Your task to perform on an android device: Go to eBay Image 0: 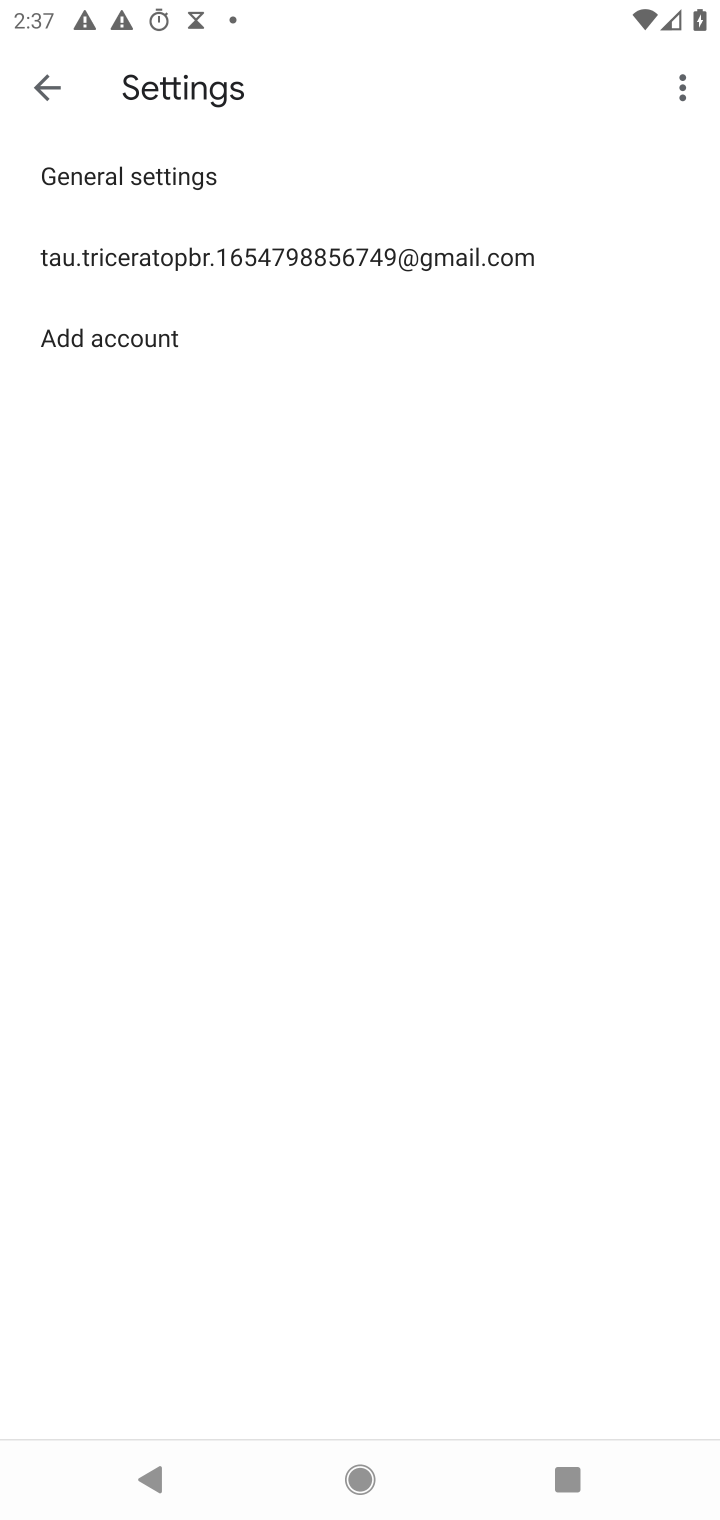
Step 0: press home button
Your task to perform on an android device: Go to eBay Image 1: 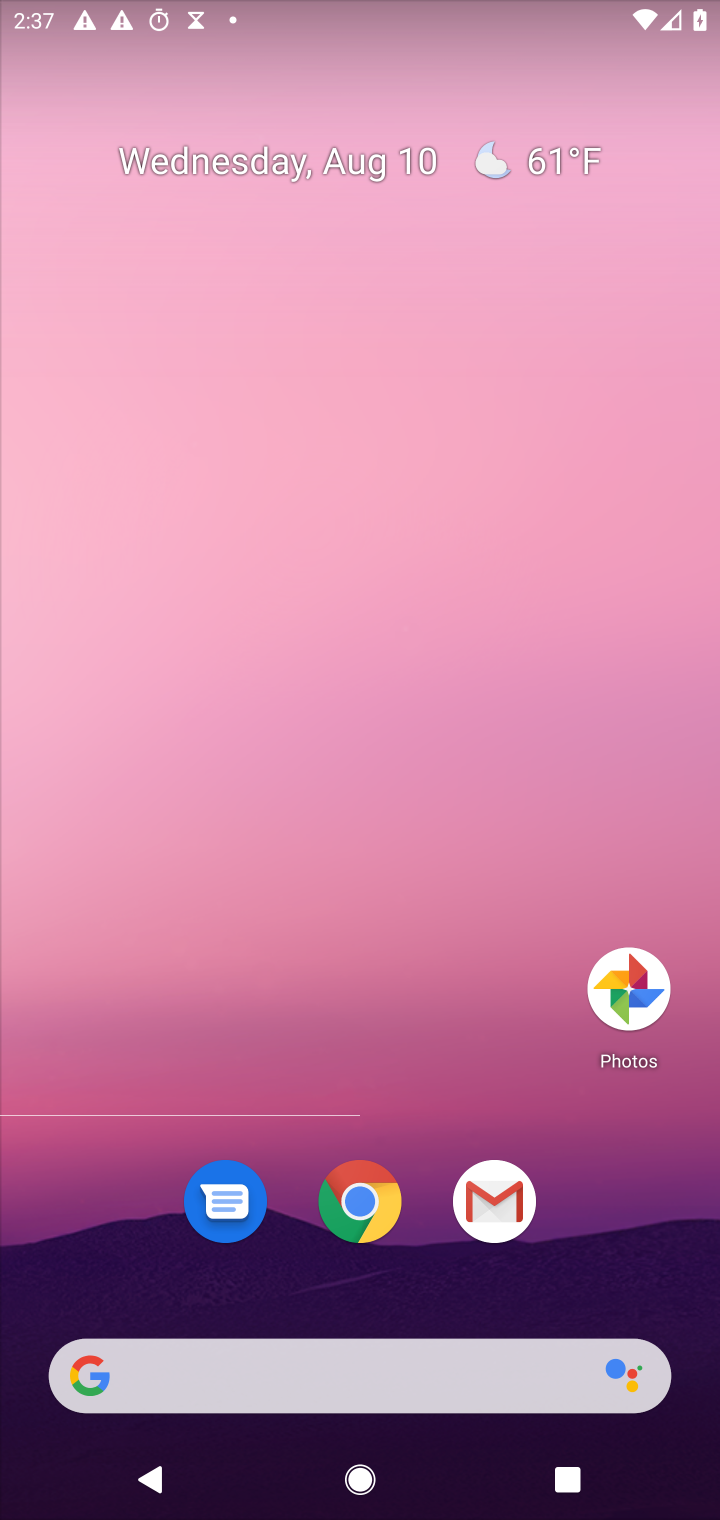
Step 1: click (81, 1373)
Your task to perform on an android device: Go to eBay Image 2: 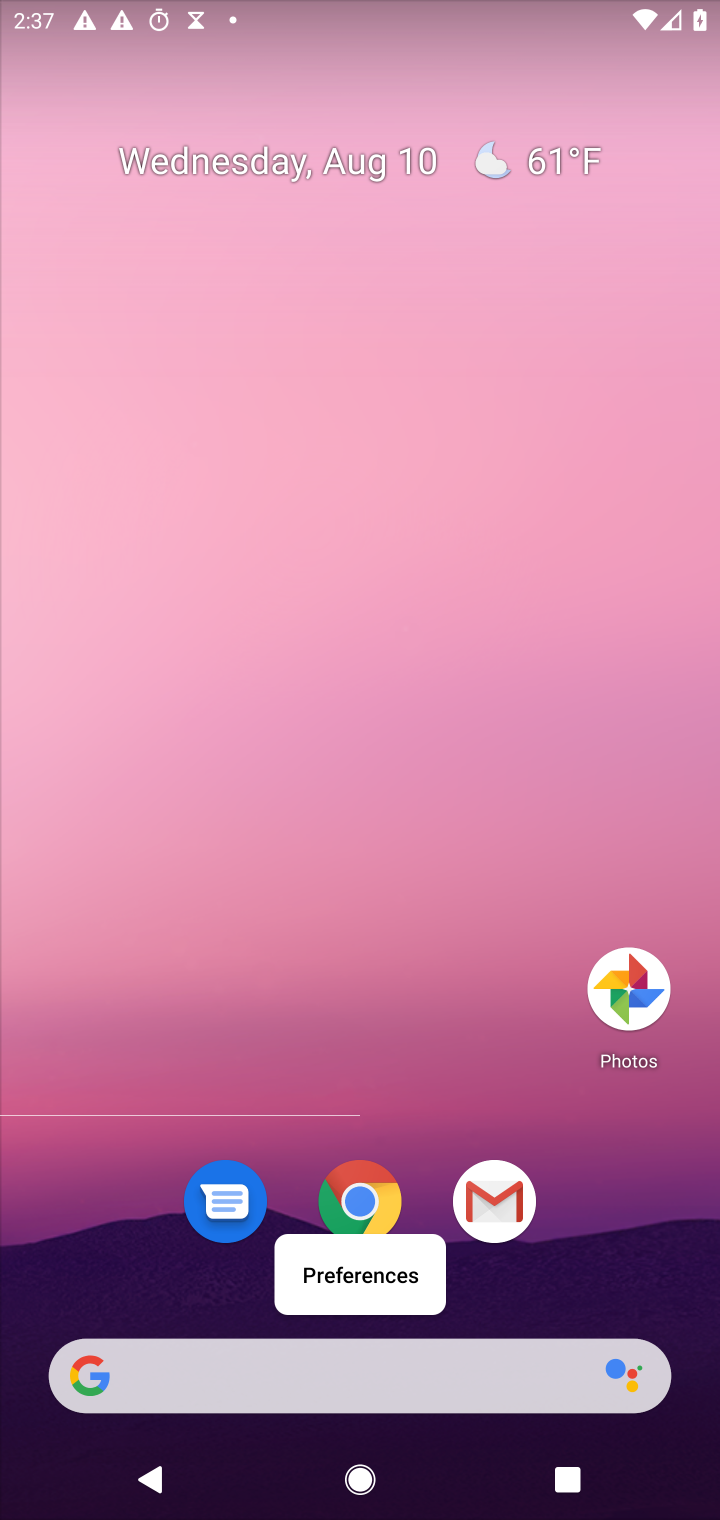
Step 2: click (81, 1373)
Your task to perform on an android device: Go to eBay Image 3: 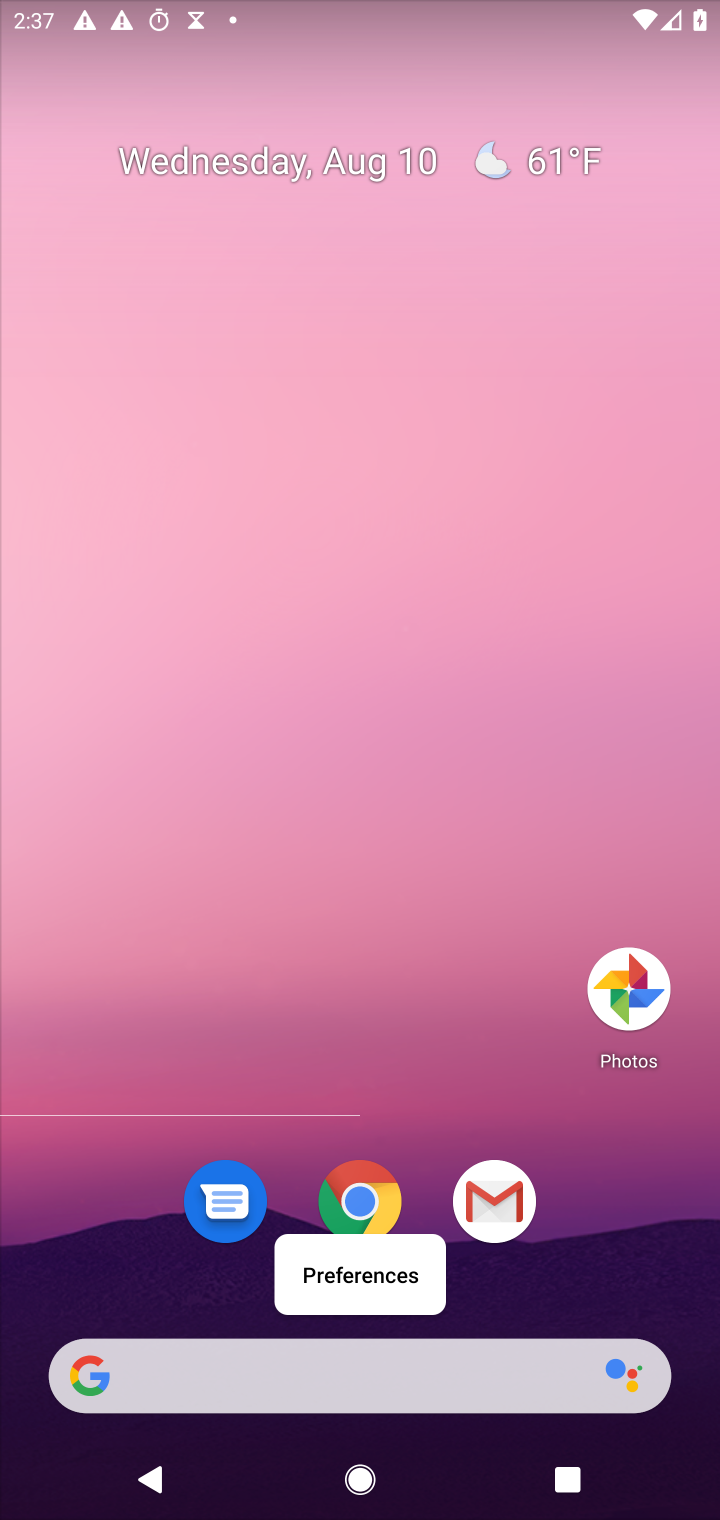
Step 3: click (60, 1347)
Your task to perform on an android device: Go to eBay Image 4: 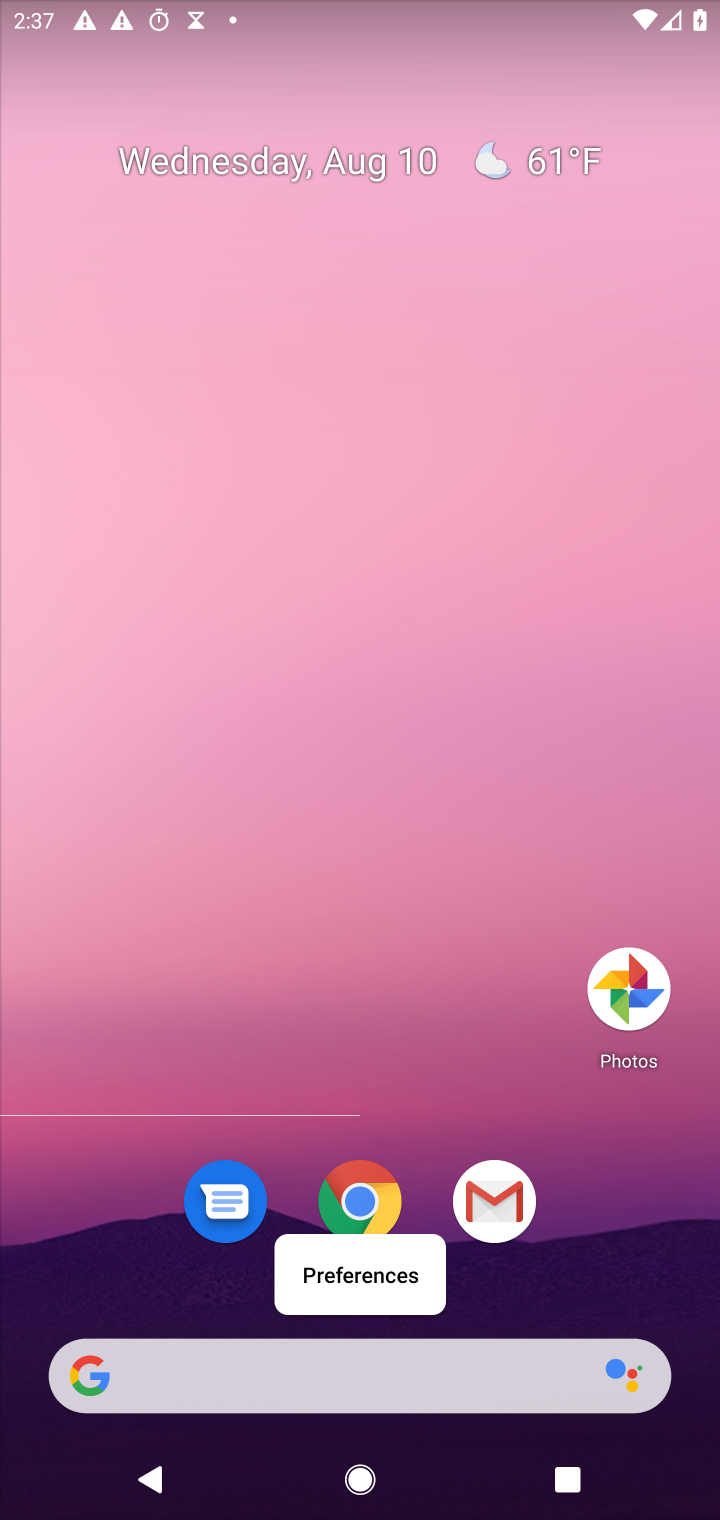
Step 4: click (71, 1378)
Your task to perform on an android device: Go to eBay Image 5: 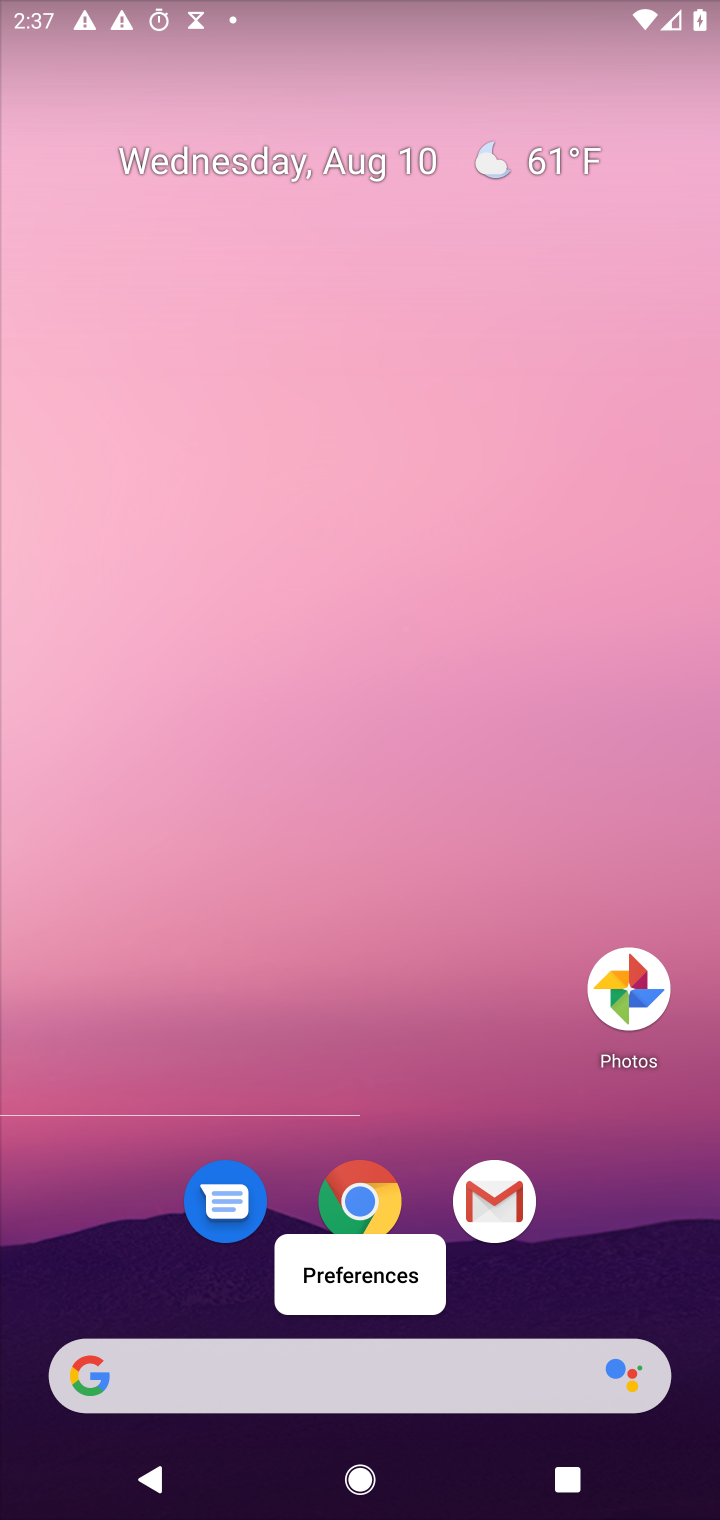
Step 5: click (79, 1384)
Your task to perform on an android device: Go to eBay Image 6: 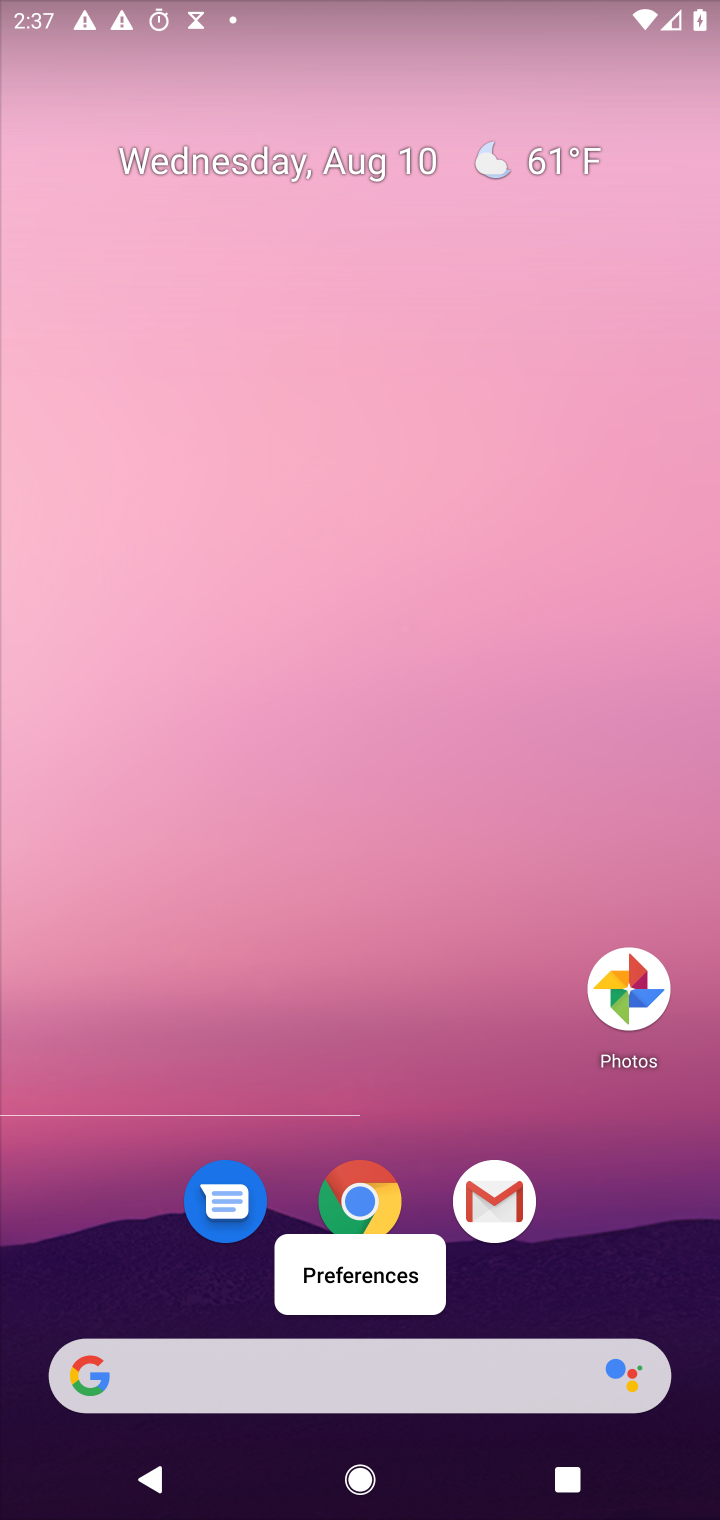
Step 6: click (71, 1371)
Your task to perform on an android device: Go to eBay Image 7: 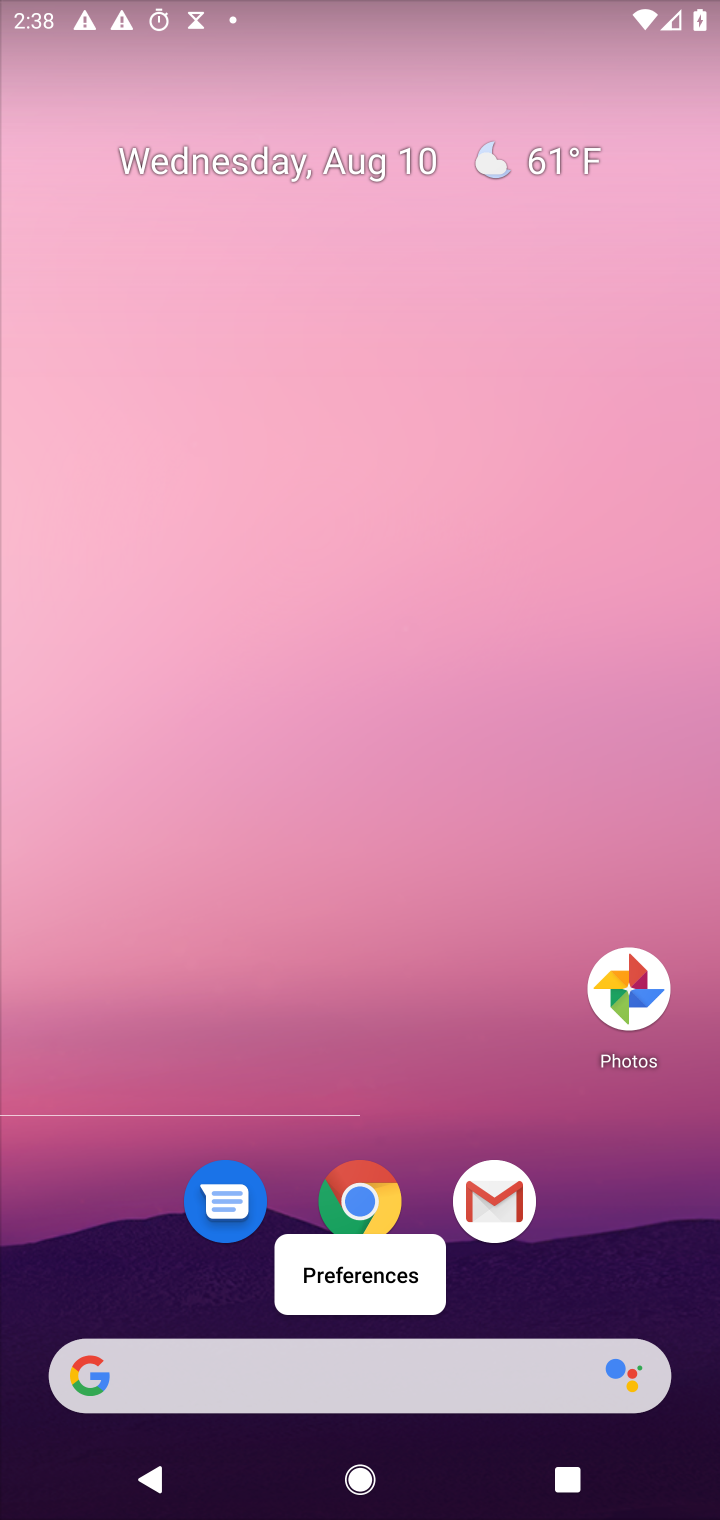
Step 7: click (105, 1380)
Your task to perform on an android device: Go to eBay Image 8: 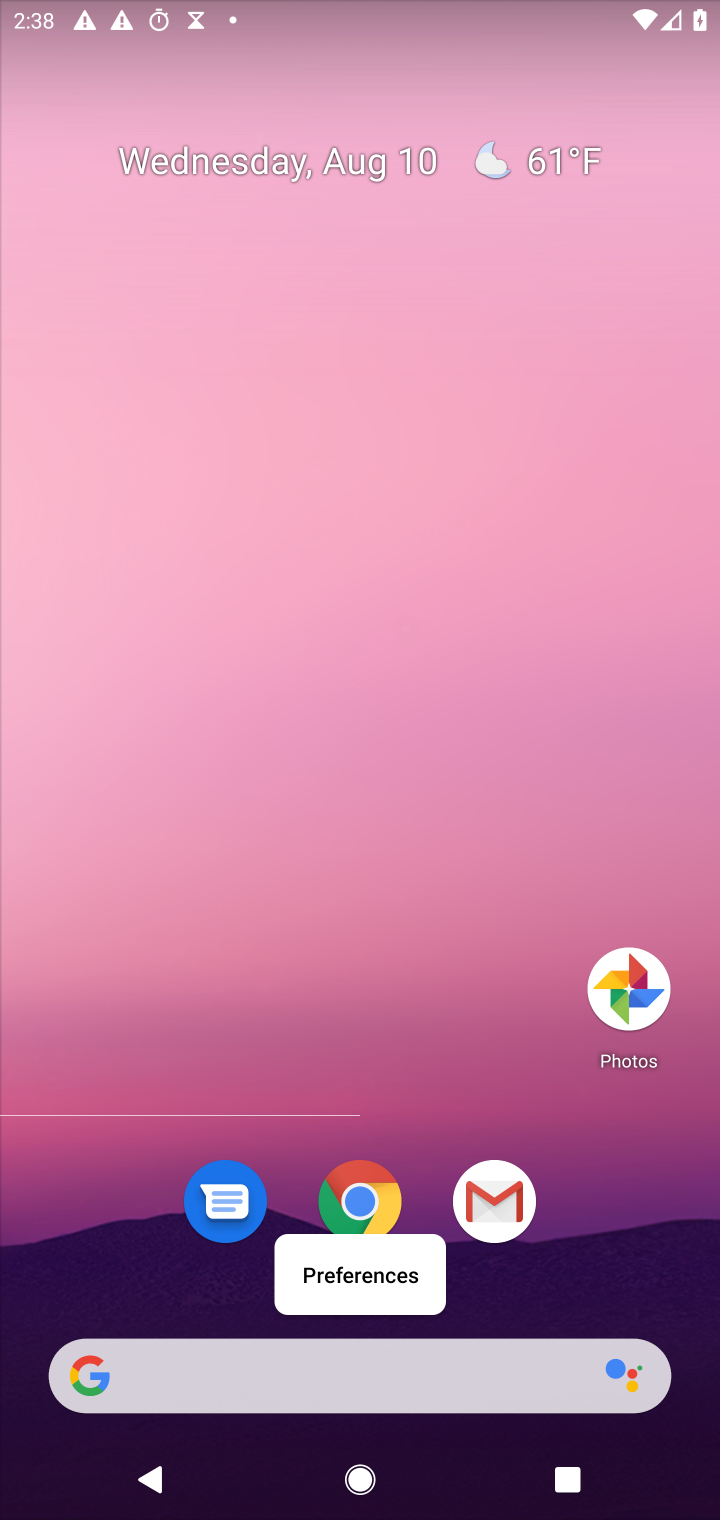
Step 8: click (105, 1380)
Your task to perform on an android device: Go to eBay Image 9: 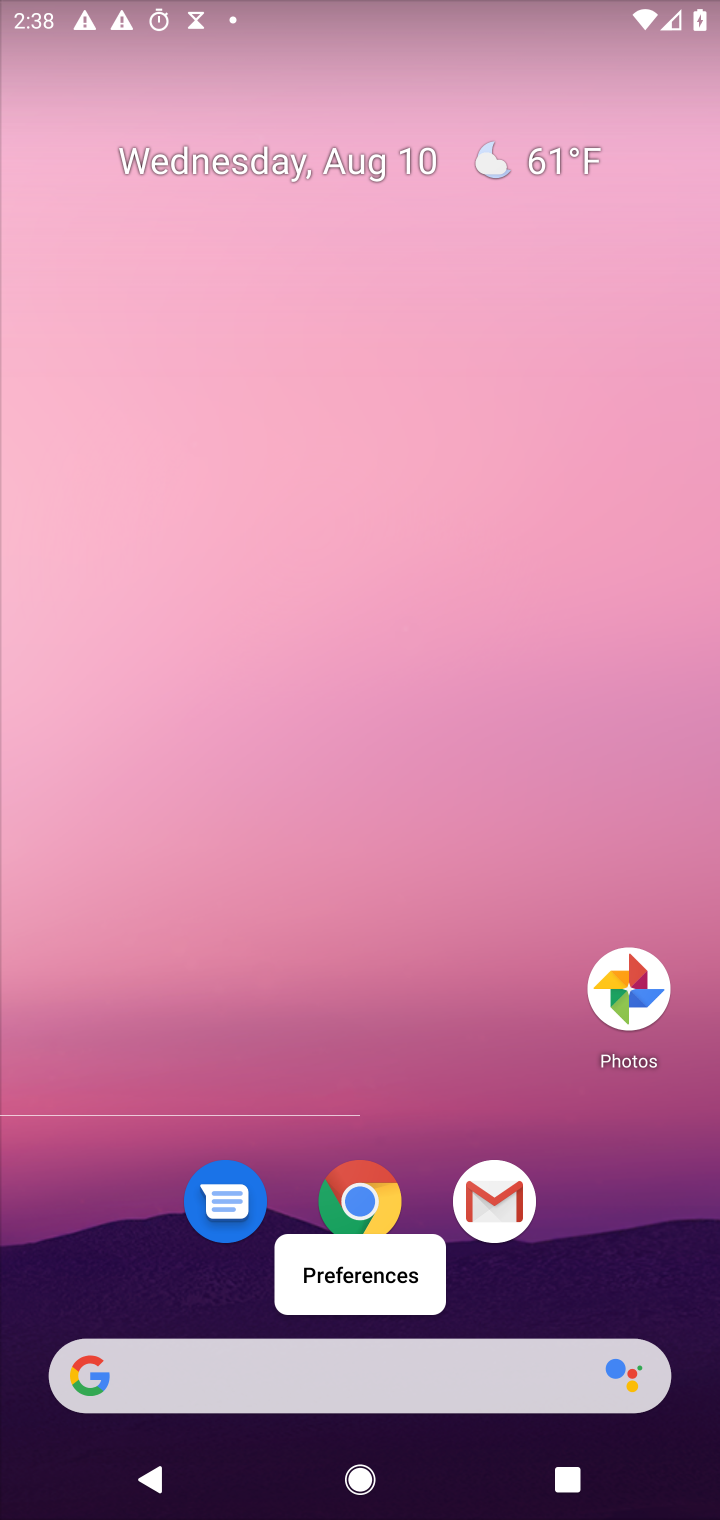
Step 9: click (89, 1370)
Your task to perform on an android device: Go to eBay Image 10: 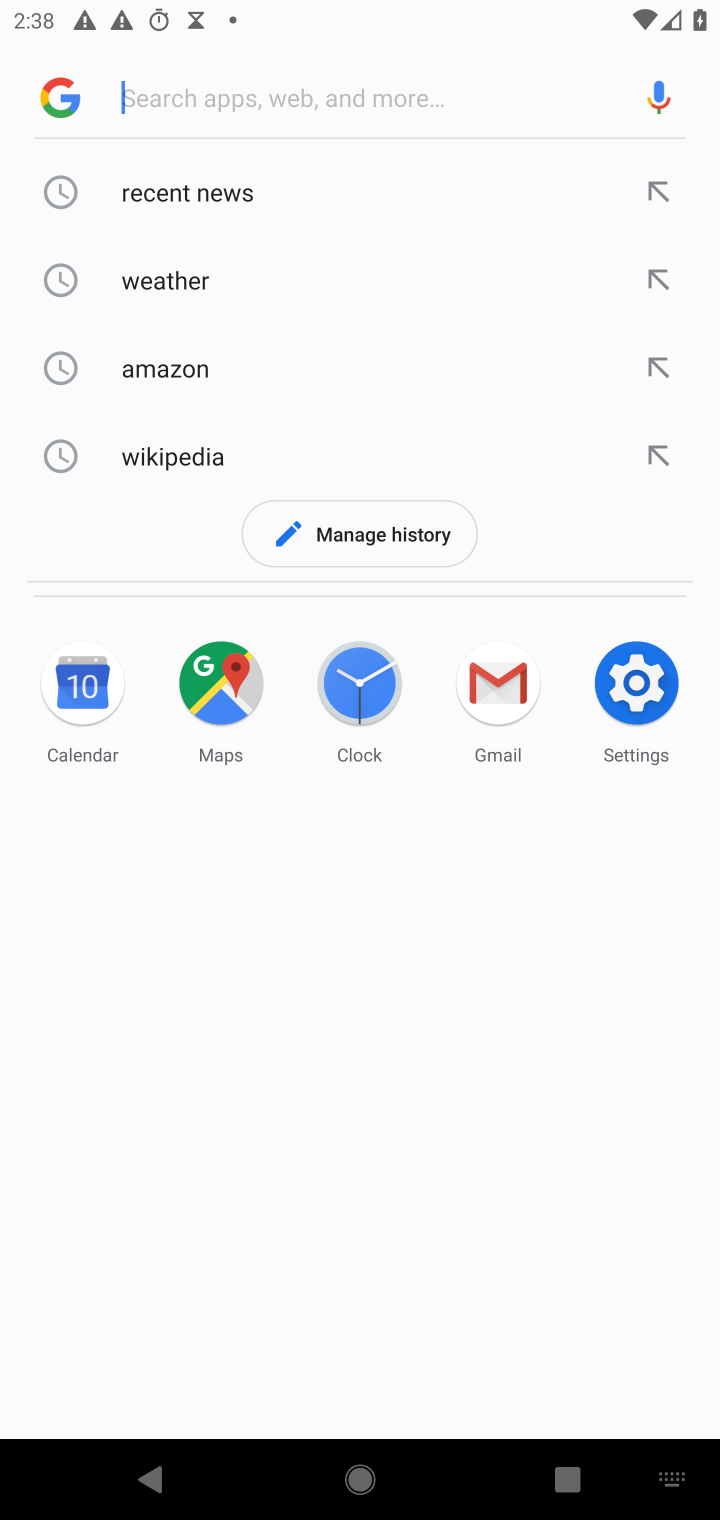
Step 10: type "eBay"
Your task to perform on an android device: Go to eBay Image 11: 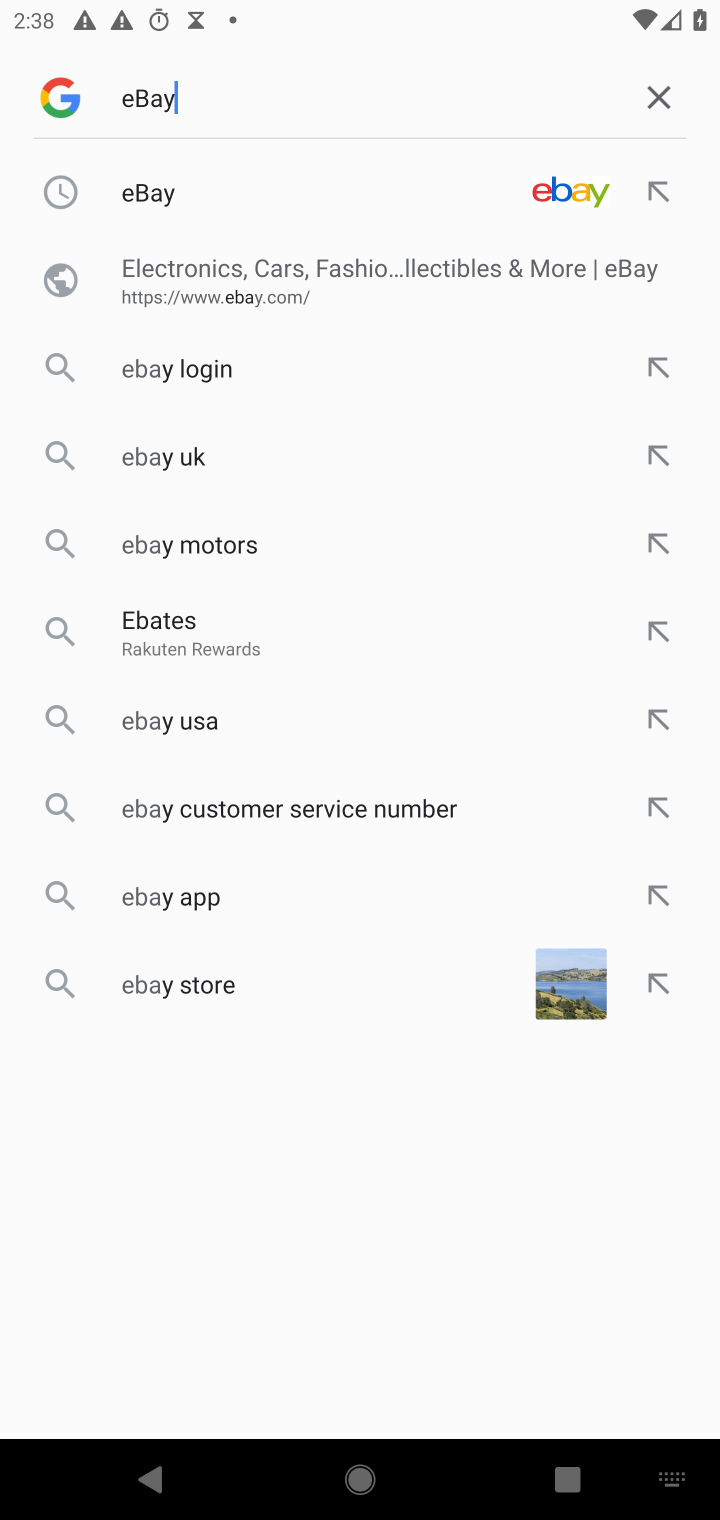
Step 11: press enter
Your task to perform on an android device: Go to eBay Image 12: 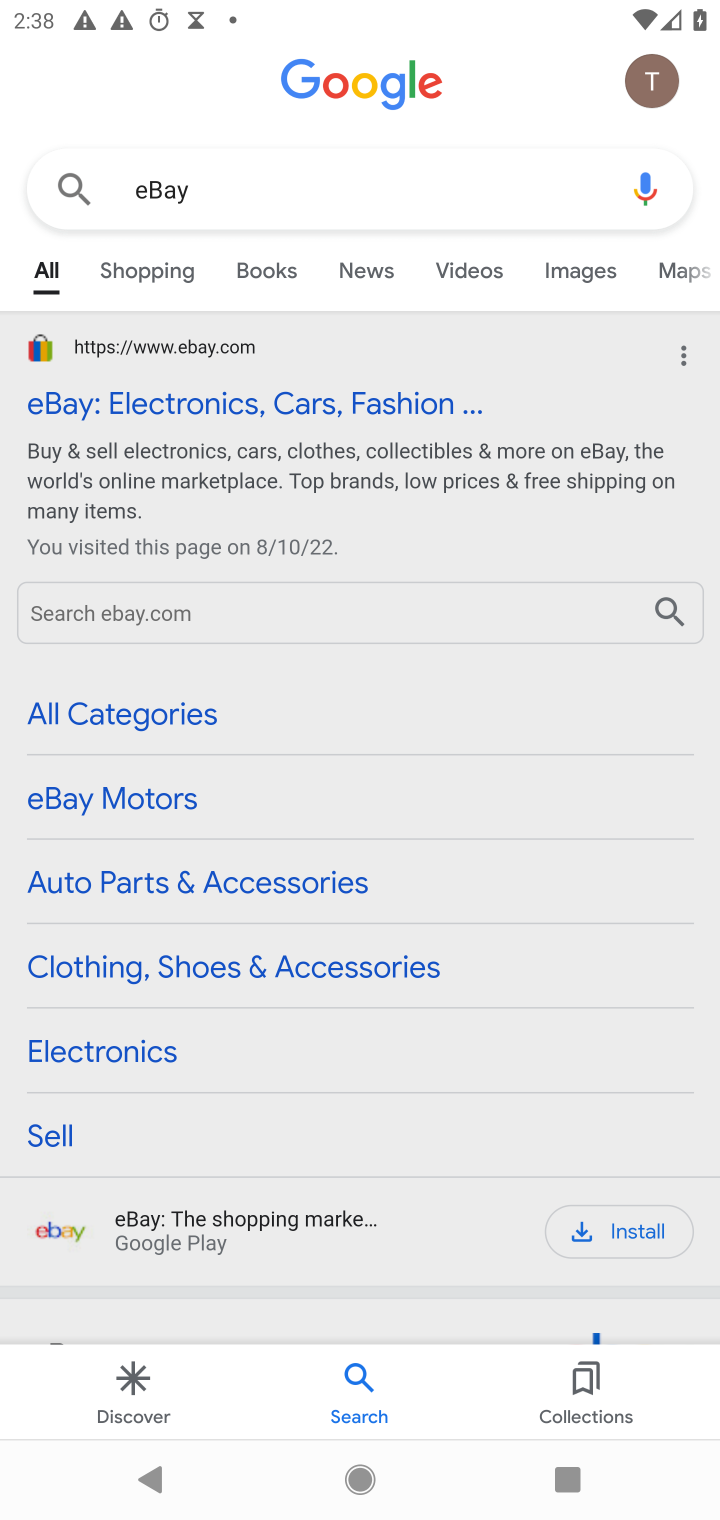
Step 12: click (340, 397)
Your task to perform on an android device: Go to eBay Image 13: 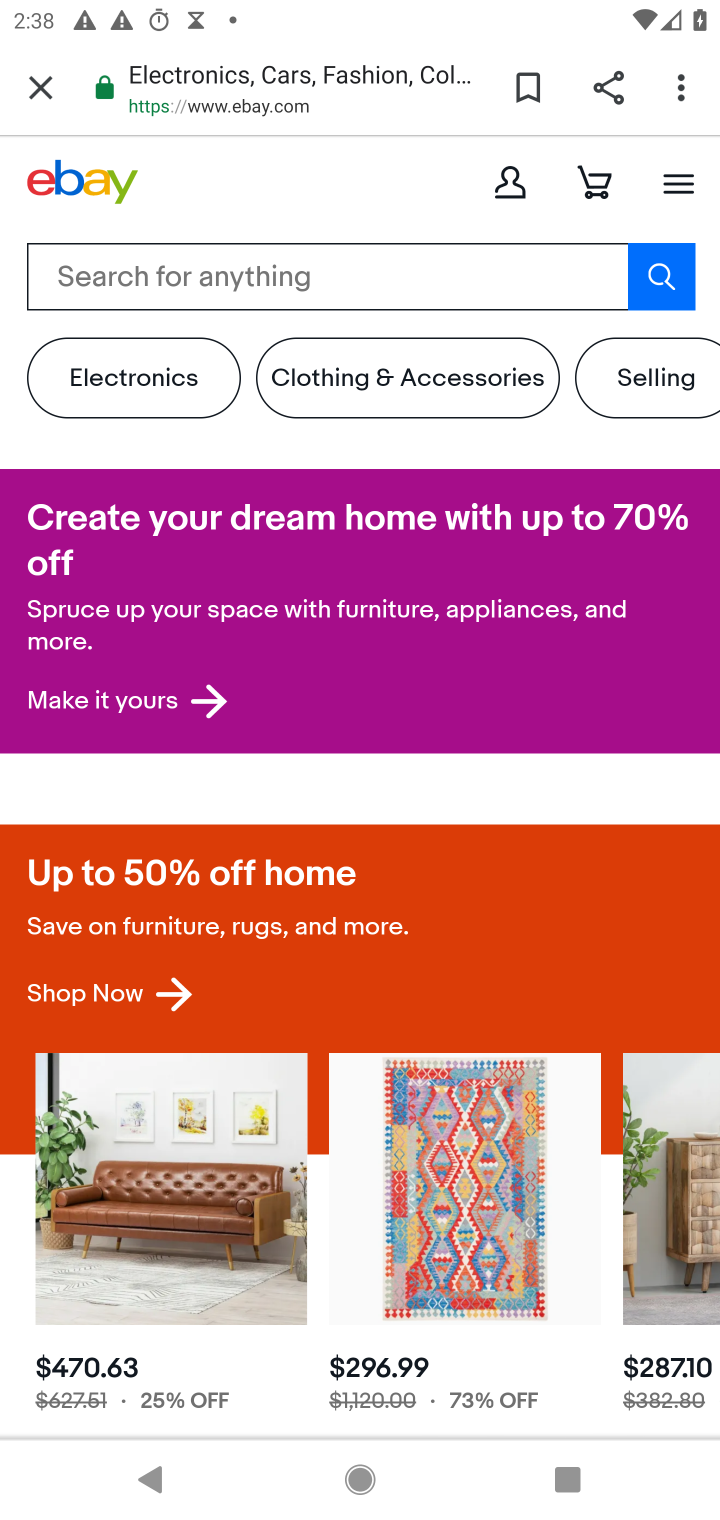
Step 13: task complete